Your task to perform on an android device: change timer sound Image 0: 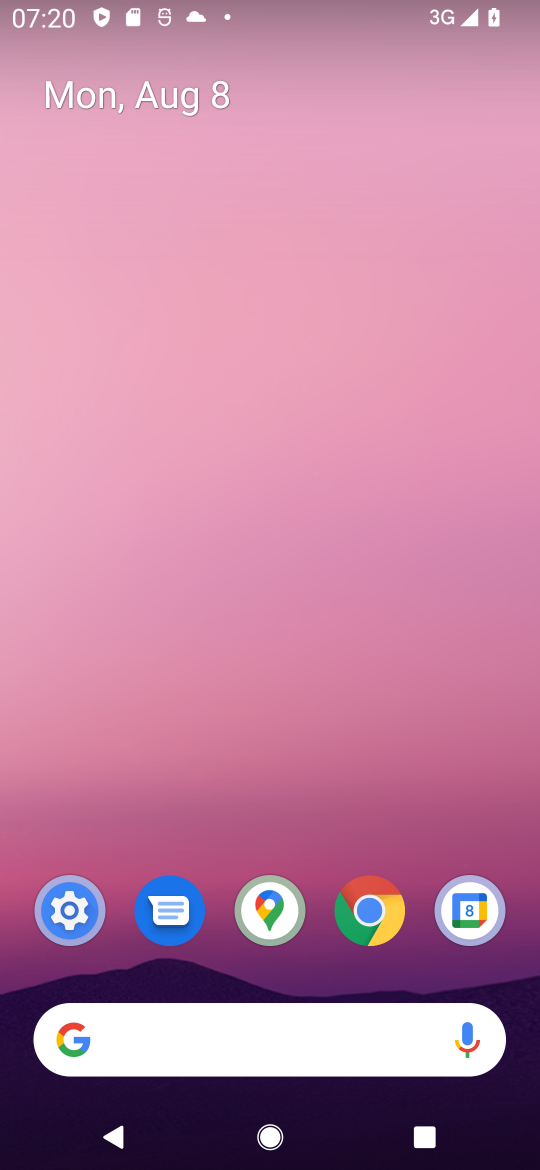
Step 0: drag from (223, 1039) to (251, 314)
Your task to perform on an android device: change timer sound Image 1: 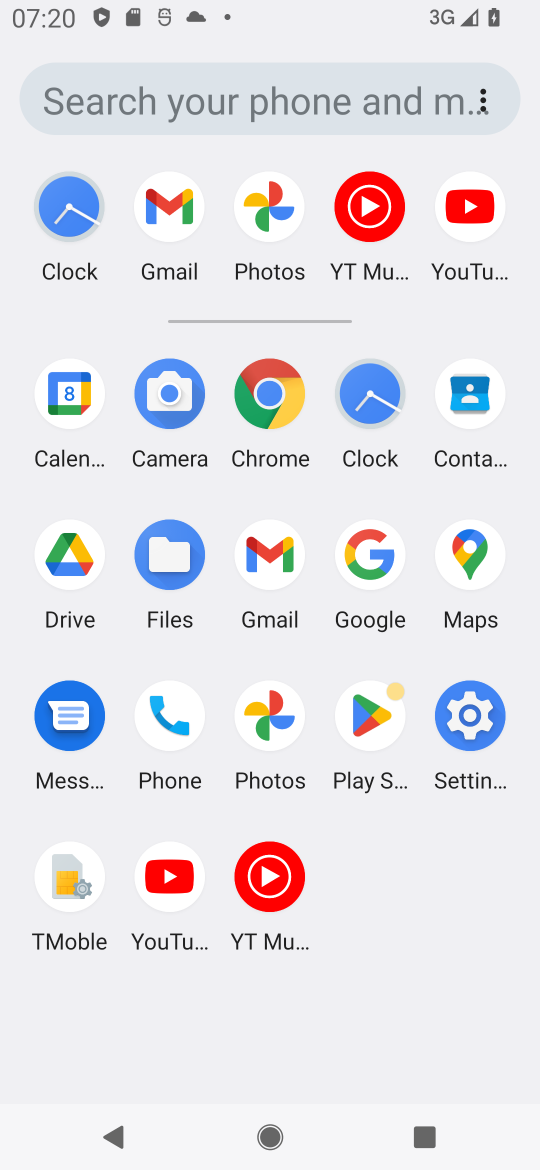
Step 1: click (370, 393)
Your task to perform on an android device: change timer sound Image 2: 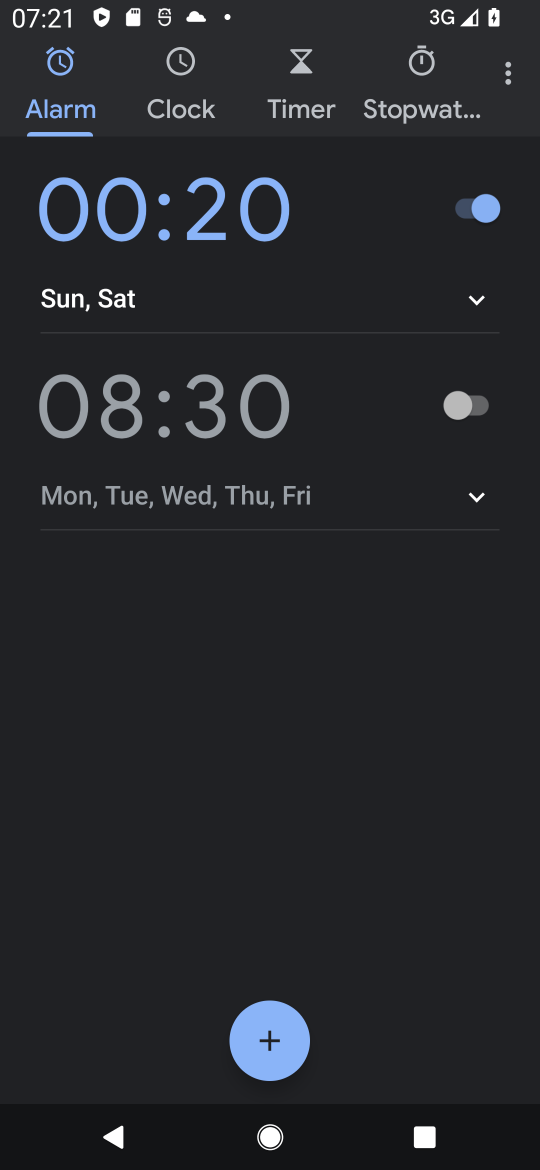
Step 2: click (509, 73)
Your task to perform on an android device: change timer sound Image 3: 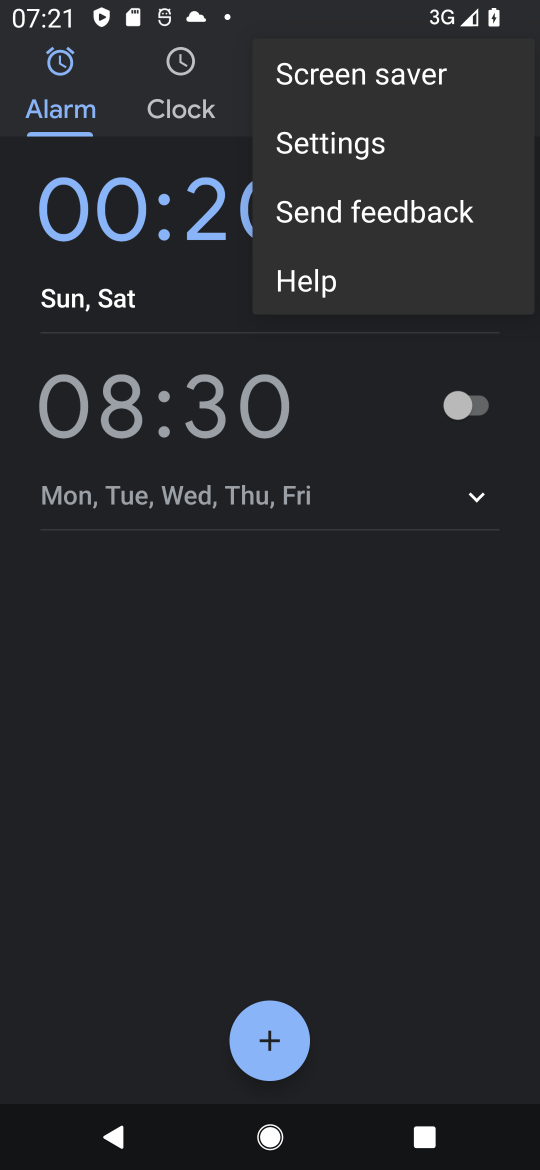
Step 3: click (361, 138)
Your task to perform on an android device: change timer sound Image 4: 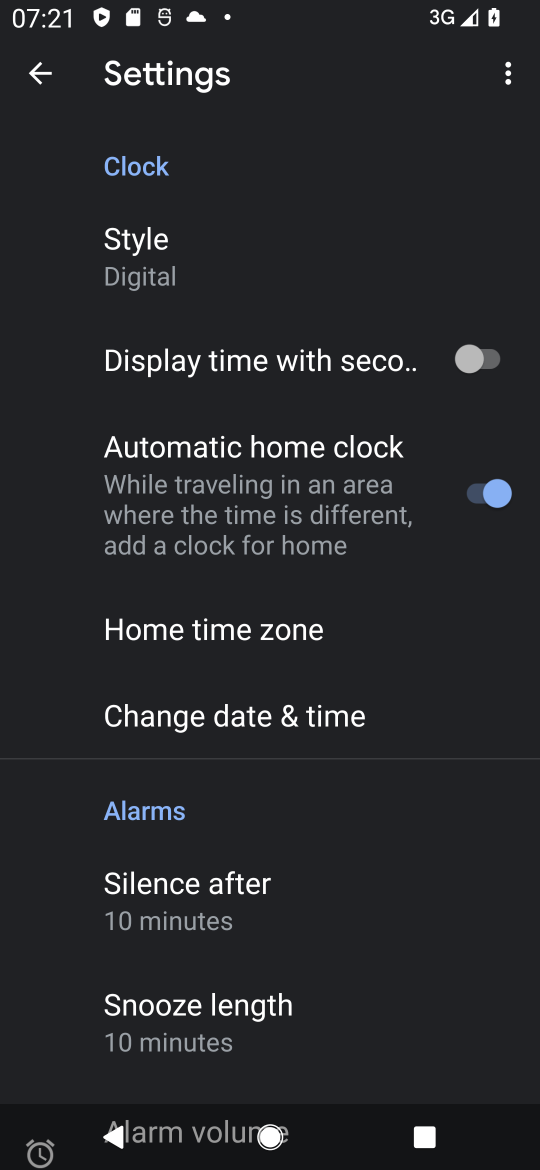
Step 4: drag from (277, 819) to (327, 643)
Your task to perform on an android device: change timer sound Image 5: 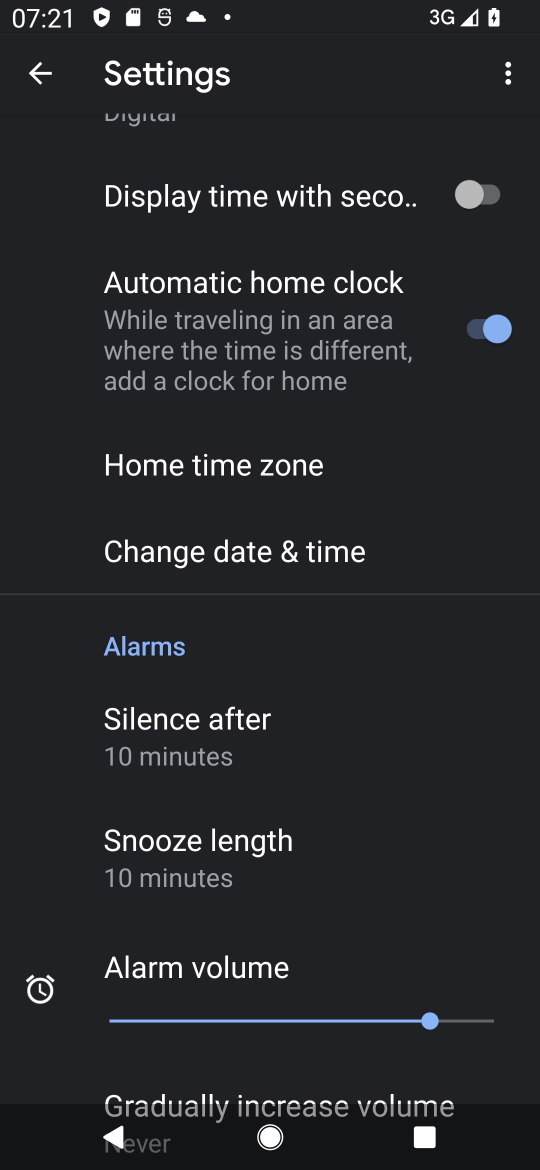
Step 5: drag from (308, 873) to (384, 695)
Your task to perform on an android device: change timer sound Image 6: 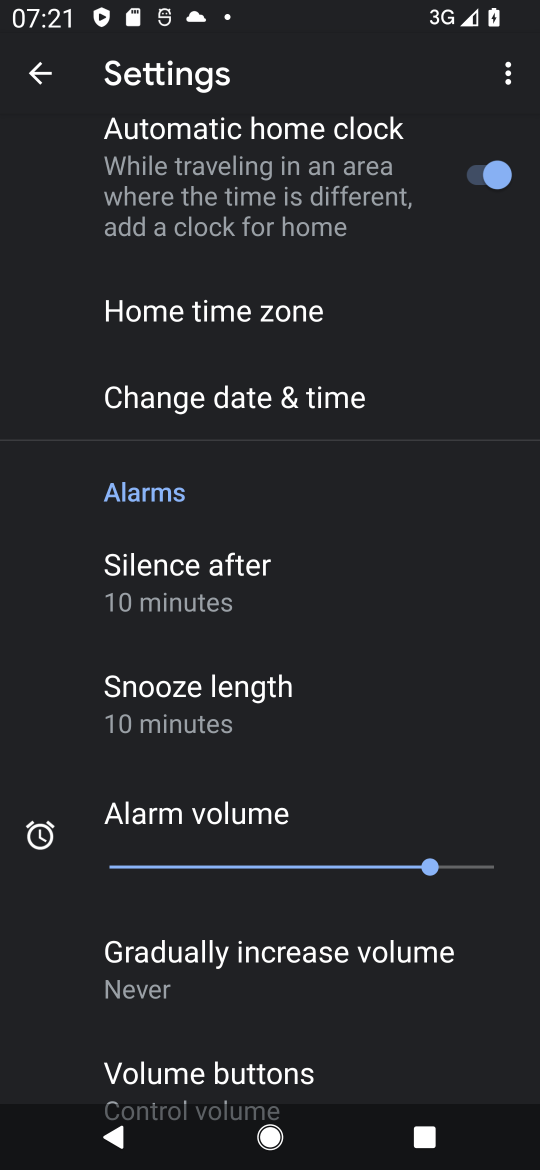
Step 6: drag from (287, 909) to (411, 731)
Your task to perform on an android device: change timer sound Image 7: 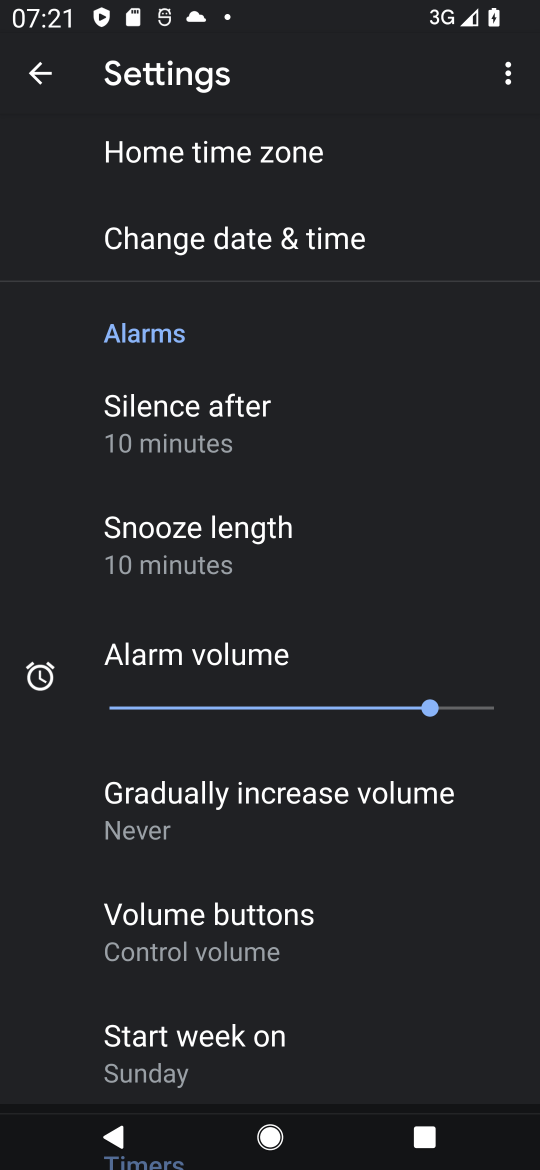
Step 7: drag from (308, 902) to (405, 739)
Your task to perform on an android device: change timer sound Image 8: 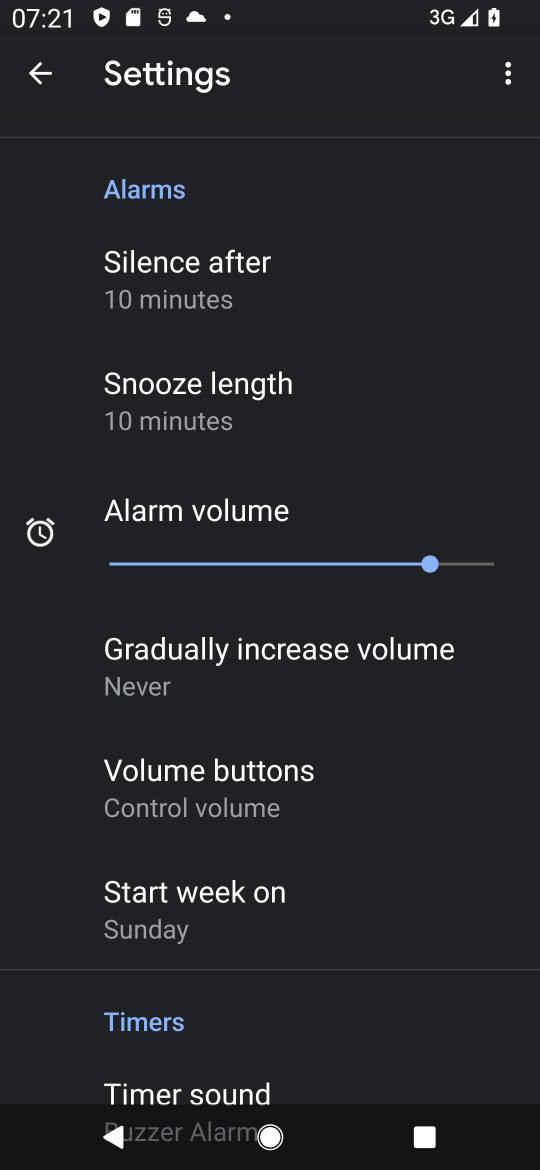
Step 8: drag from (242, 959) to (364, 776)
Your task to perform on an android device: change timer sound Image 9: 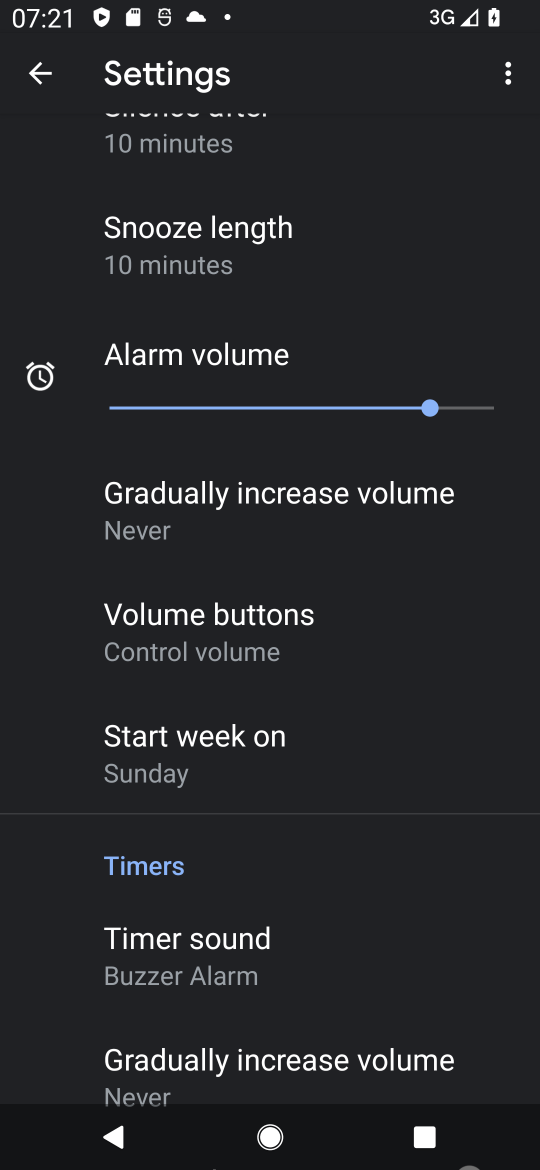
Step 9: click (247, 935)
Your task to perform on an android device: change timer sound Image 10: 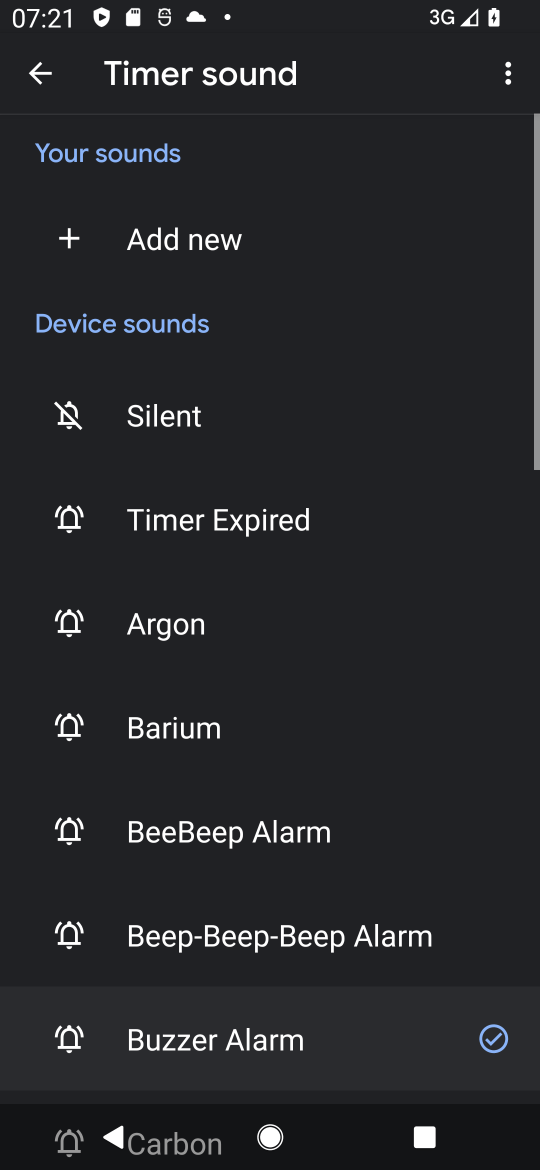
Step 10: drag from (271, 401) to (257, 798)
Your task to perform on an android device: change timer sound Image 11: 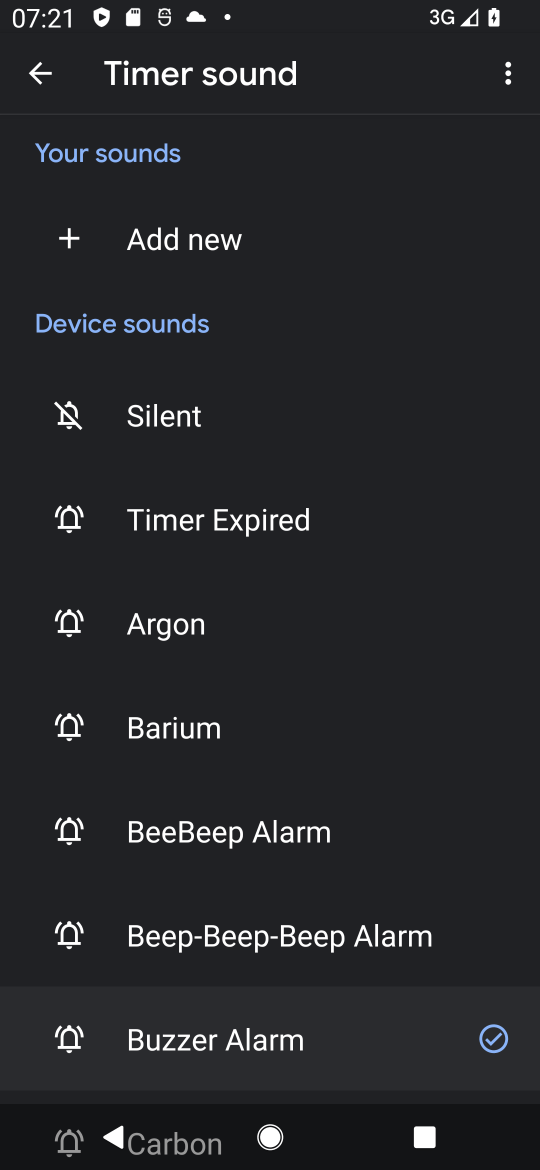
Step 11: drag from (242, 960) to (368, 688)
Your task to perform on an android device: change timer sound Image 12: 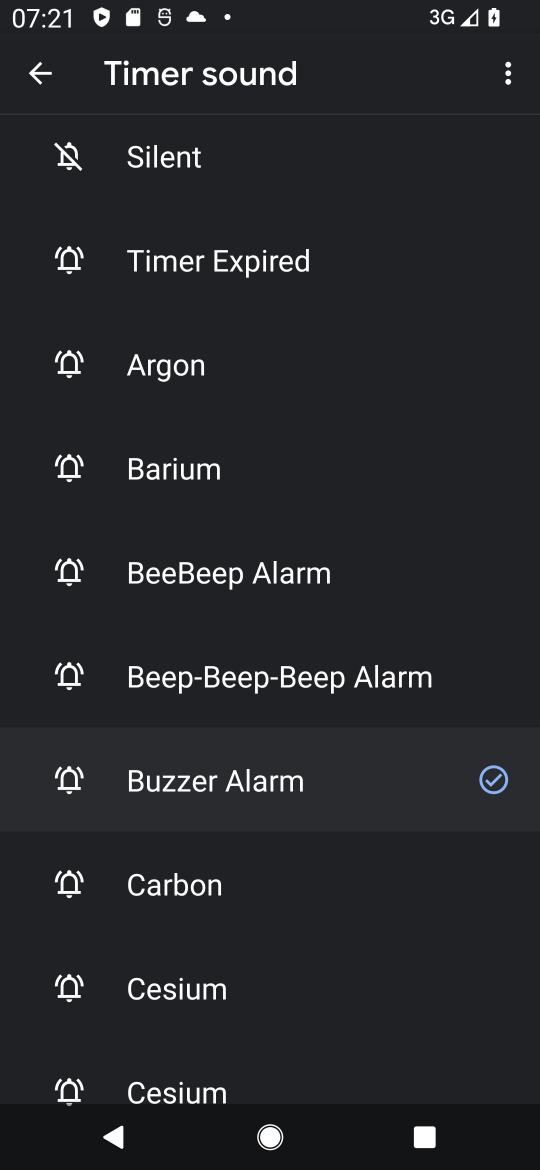
Step 12: drag from (237, 925) to (377, 487)
Your task to perform on an android device: change timer sound Image 13: 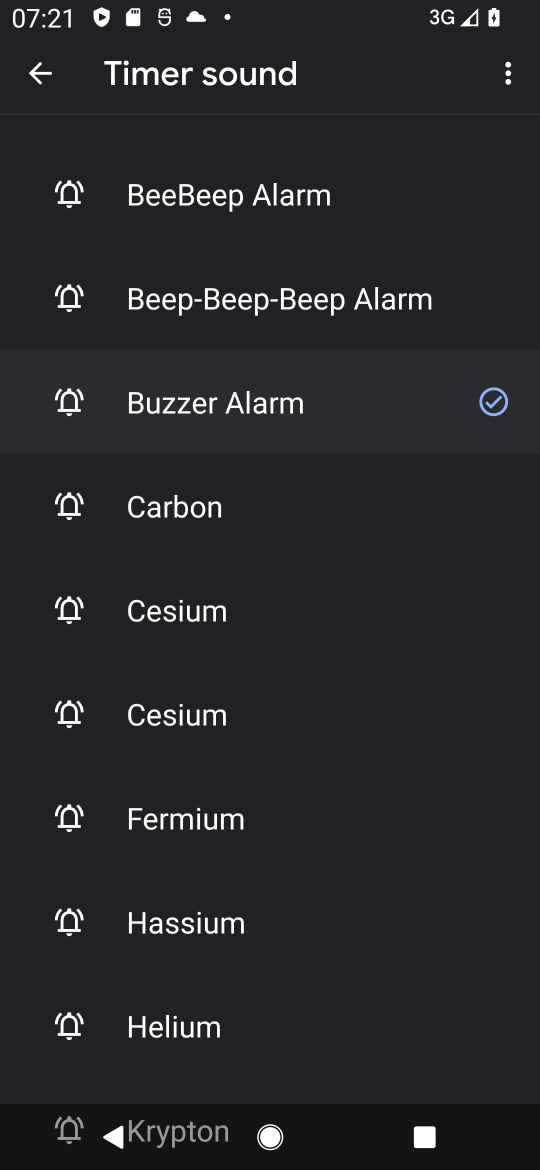
Step 13: click (161, 804)
Your task to perform on an android device: change timer sound Image 14: 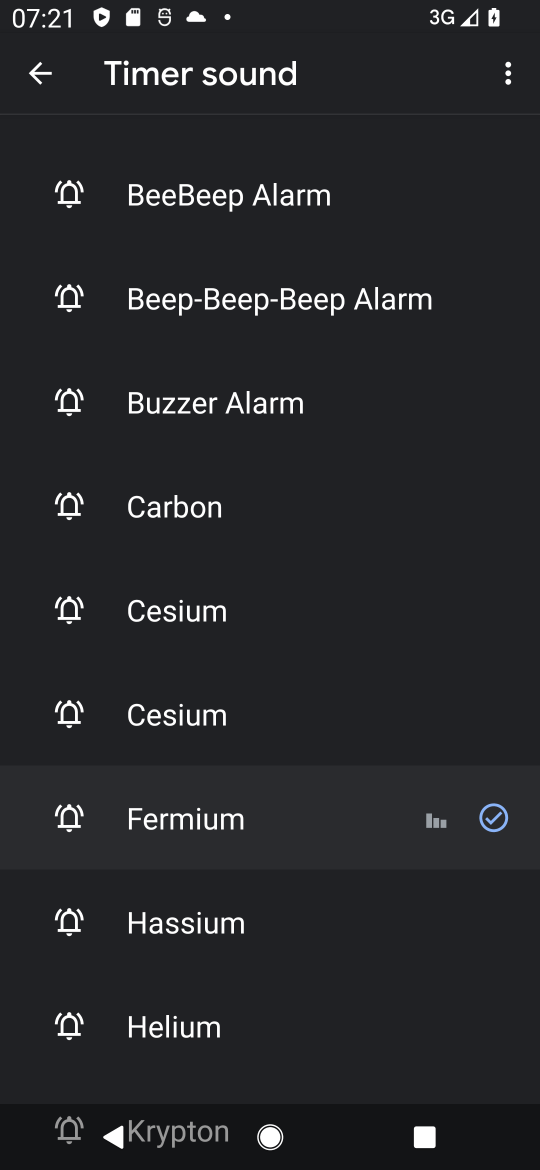
Step 14: task complete